Your task to perform on an android device: see creations saved in the google photos Image 0: 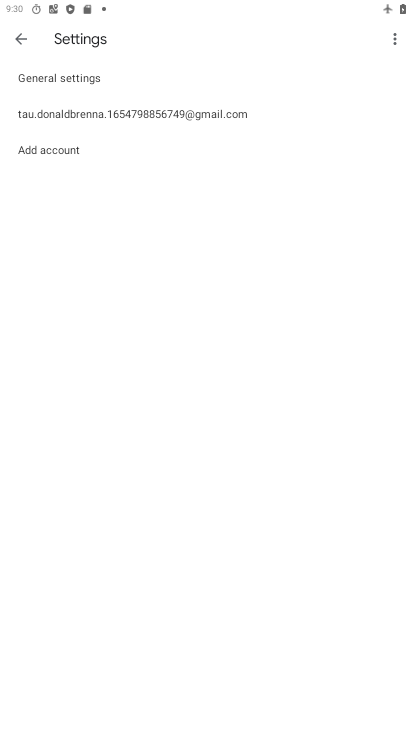
Step 0: press home button
Your task to perform on an android device: see creations saved in the google photos Image 1: 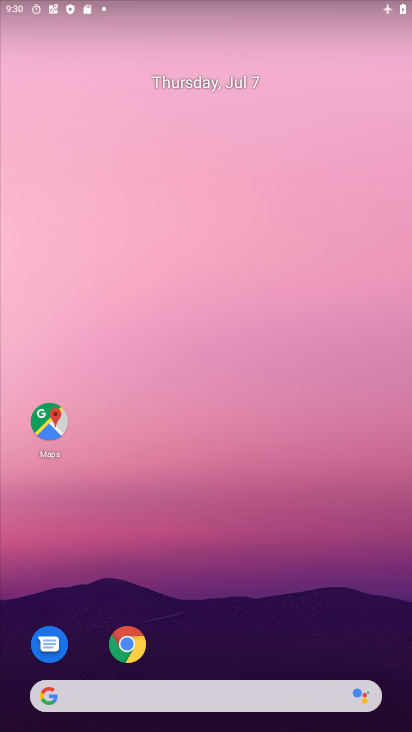
Step 1: drag from (308, 617) to (280, 79)
Your task to perform on an android device: see creations saved in the google photos Image 2: 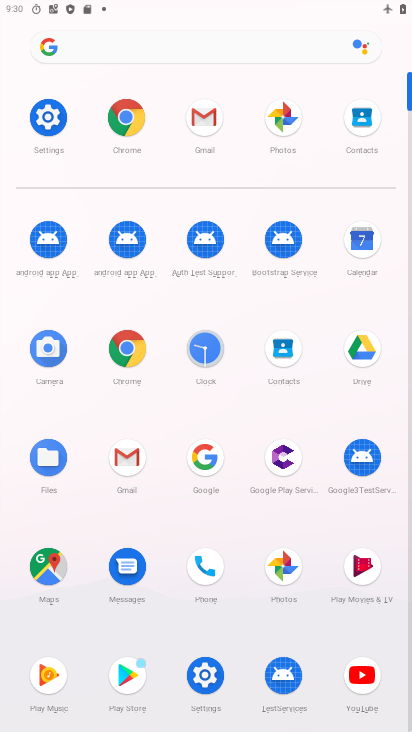
Step 2: click (293, 111)
Your task to perform on an android device: see creations saved in the google photos Image 3: 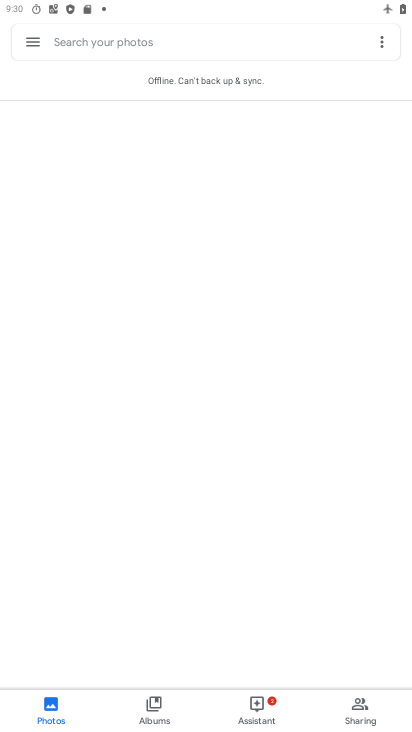
Step 3: click (165, 706)
Your task to perform on an android device: see creations saved in the google photos Image 4: 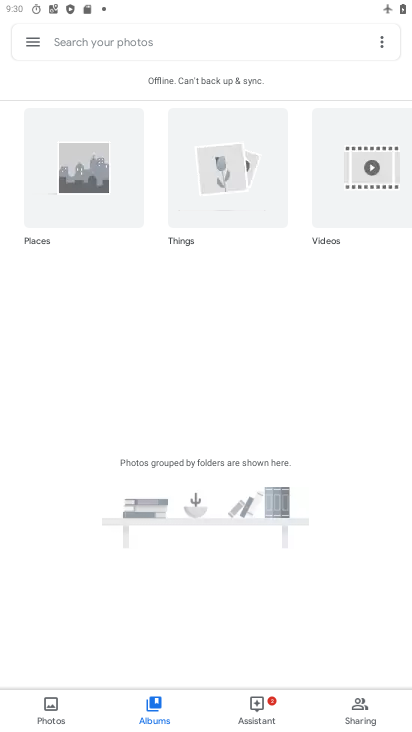
Step 4: drag from (339, 175) to (23, 190)
Your task to perform on an android device: see creations saved in the google photos Image 5: 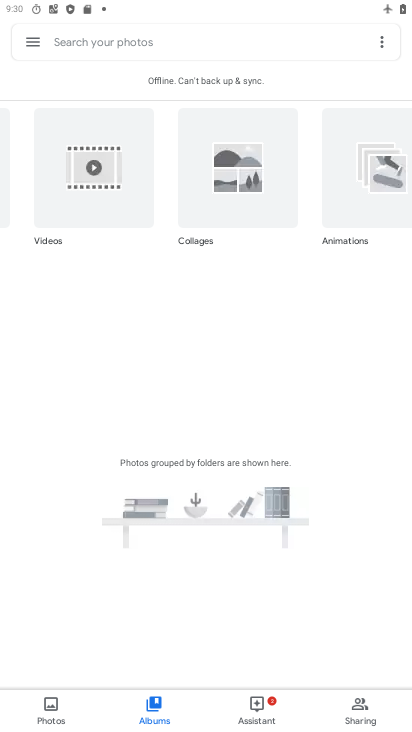
Step 5: click (272, 705)
Your task to perform on an android device: see creations saved in the google photos Image 6: 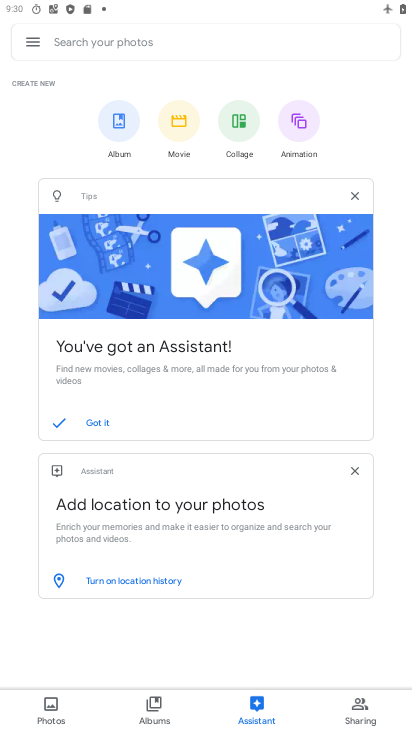
Step 6: click (360, 711)
Your task to perform on an android device: see creations saved in the google photos Image 7: 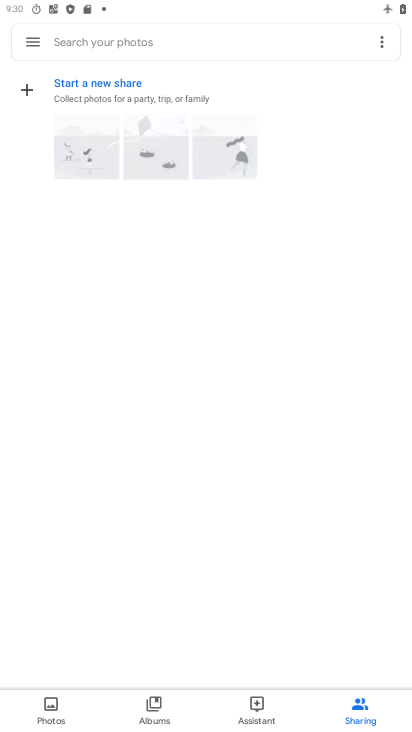
Step 7: click (255, 720)
Your task to perform on an android device: see creations saved in the google photos Image 8: 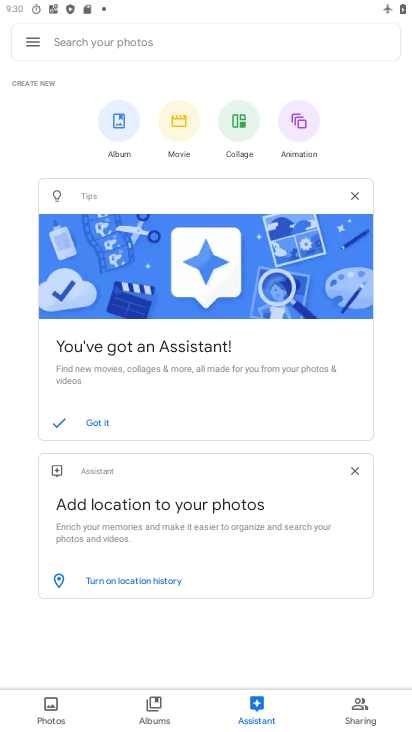
Step 8: click (161, 696)
Your task to perform on an android device: see creations saved in the google photos Image 9: 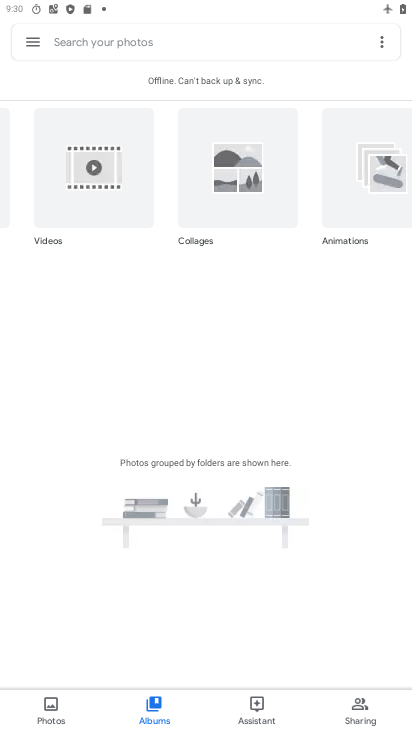
Step 9: click (68, 700)
Your task to perform on an android device: see creations saved in the google photos Image 10: 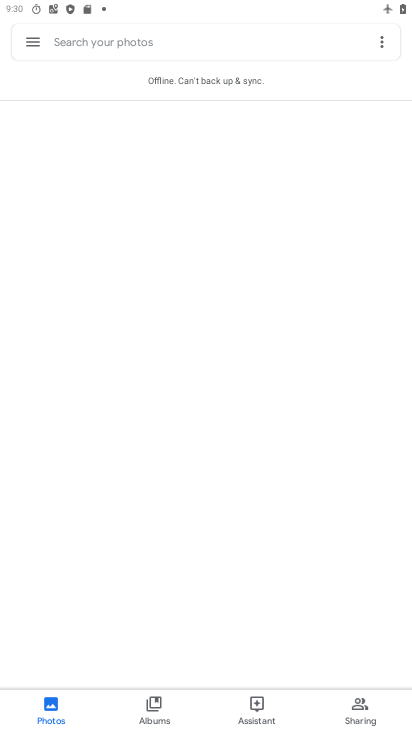
Step 10: click (154, 700)
Your task to perform on an android device: see creations saved in the google photos Image 11: 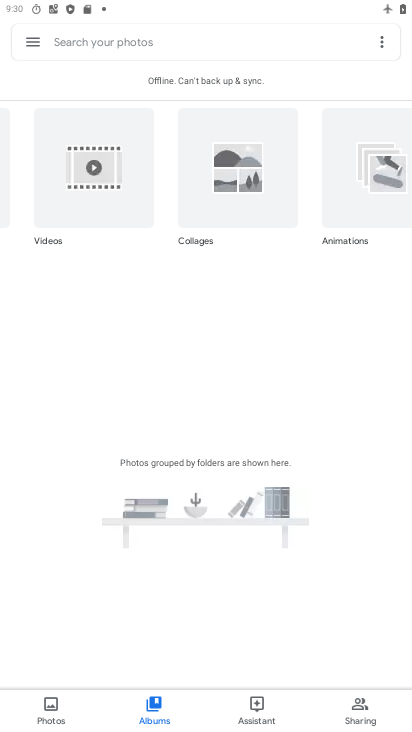
Step 11: task complete